Your task to perform on an android device: Go to Yahoo.com Image 0: 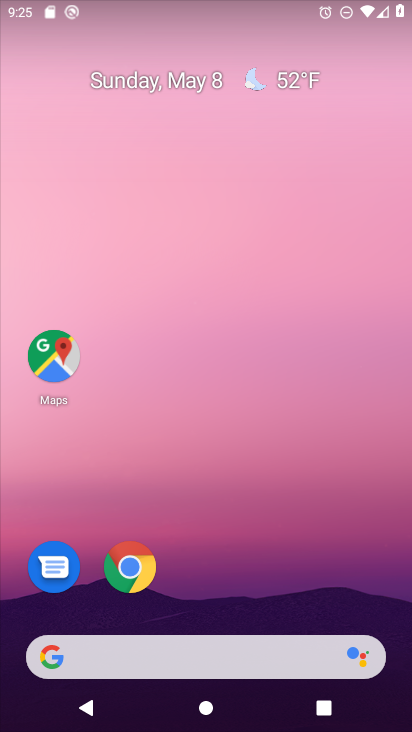
Step 0: drag from (326, 541) to (286, 68)
Your task to perform on an android device: Go to Yahoo.com Image 1: 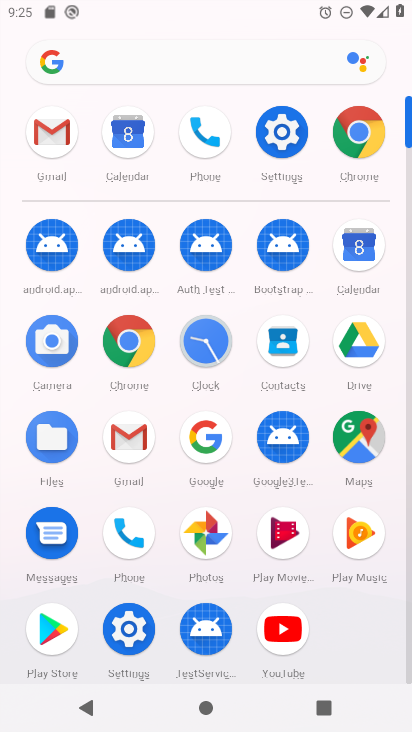
Step 1: click (348, 135)
Your task to perform on an android device: Go to Yahoo.com Image 2: 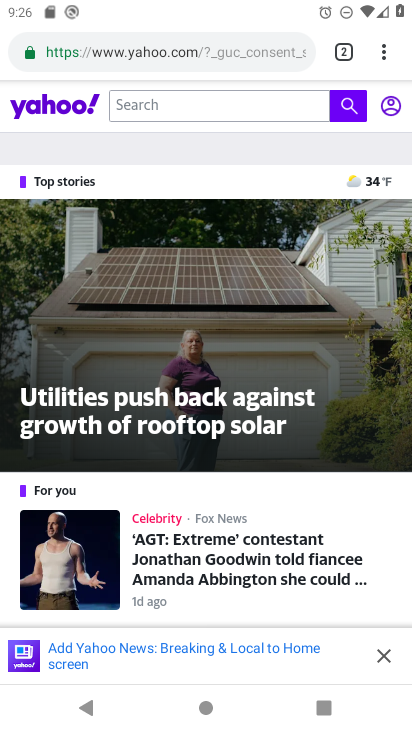
Step 2: task complete